Your task to perform on an android device: Open the Play Movies app and select the watchlist tab. Image 0: 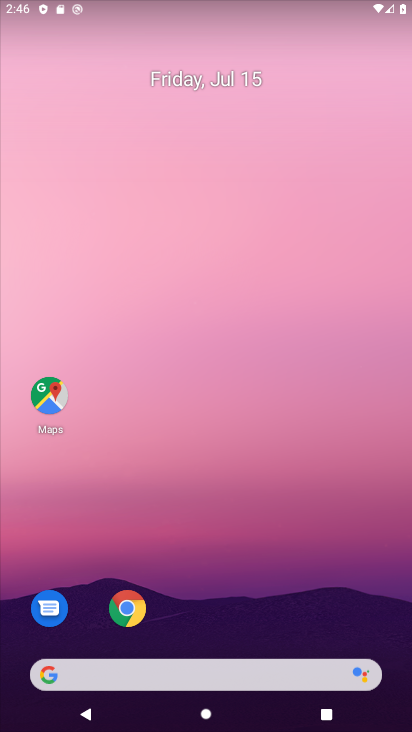
Step 0: drag from (223, 626) to (248, 174)
Your task to perform on an android device: Open the Play Movies app and select the watchlist tab. Image 1: 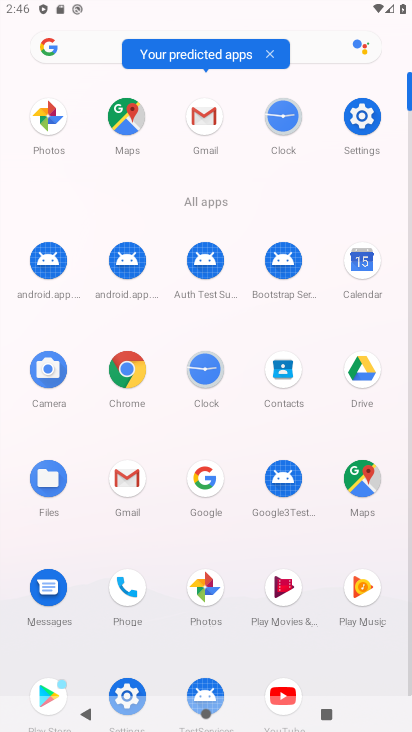
Step 1: drag from (254, 596) to (242, 300)
Your task to perform on an android device: Open the Play Movies app and select the watchlist tab. Image 2: 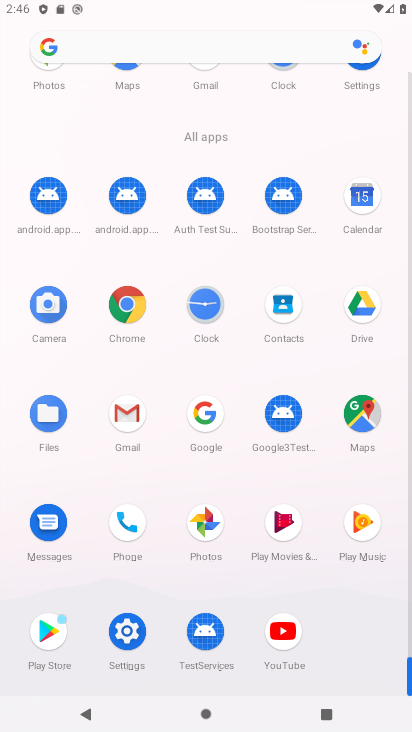
Step 2: click (282, 525)
Your task to perform on an android device: Open the Play Movies app and select the watchlist tab. Image 3: 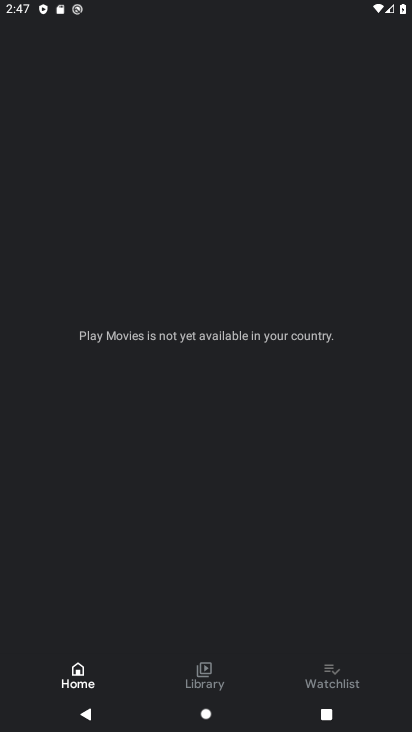
Step 3: click (334, 680)
Your task to perform on an android device: Open the Play Movies app and select the watchlist tab. Image 4: 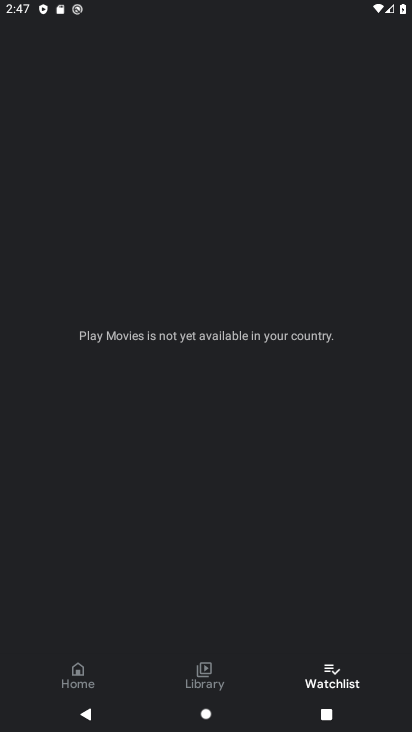
Step 4: task complete